Your task to perform on an android device: Show me recent news Image 0: 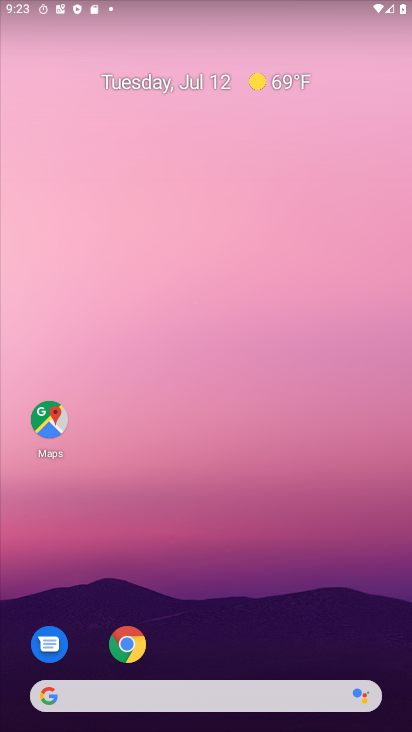
Step 0: drag from (11, 513) to (408, 463)
Your task to perform on an android device: Show me recent news Image 1: 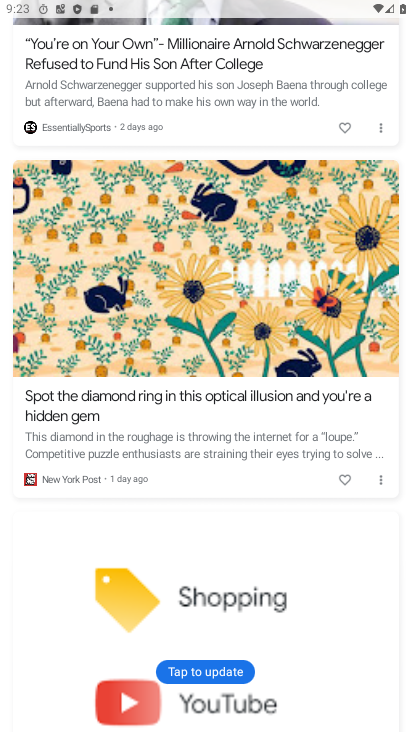
Step 1: task complete